Your task to perform on an android device: add a contact Image 0: 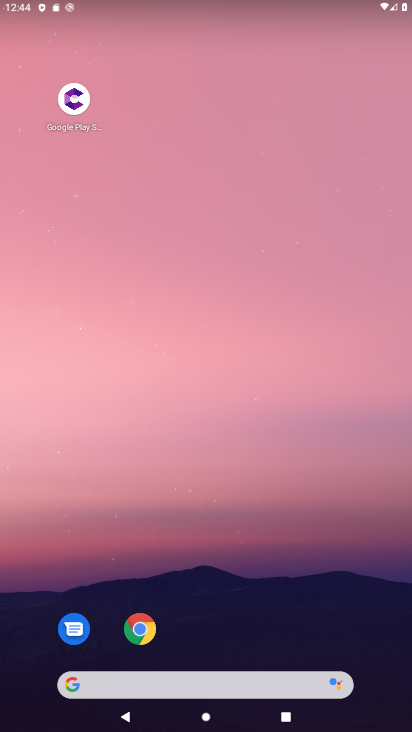
Step 0: drag from (198, 581) to (185, 94)
Your task to perform on an android device: add a contact Image 1: 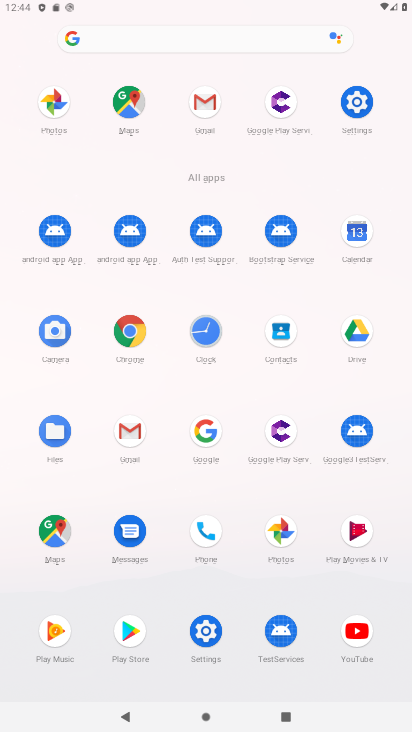
Step 1: click (276, 329)
Your task to perform on an android device: add a contact Image 2: 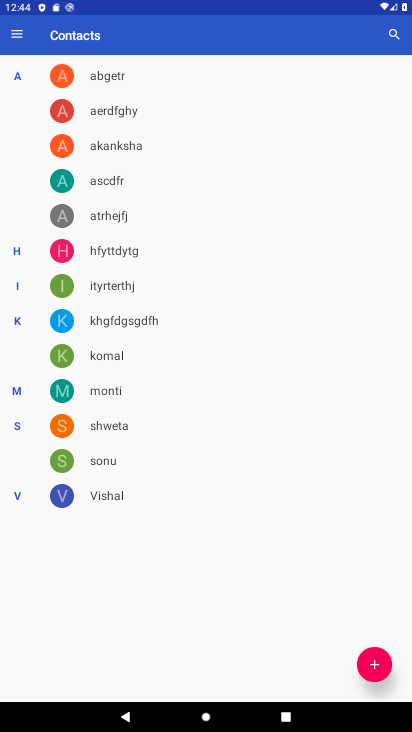
Step 2: click (370, 666)
Your task to perform on an android device: add a contact Image 3: 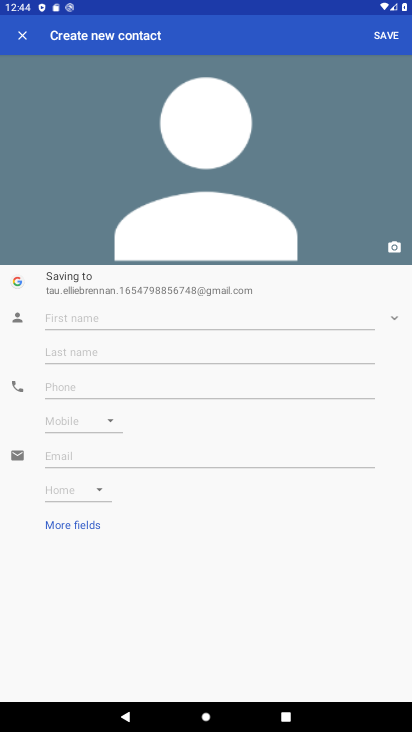
Step 3: click (102, 321)
Your task to perform on an android device: add a contact Image 4: 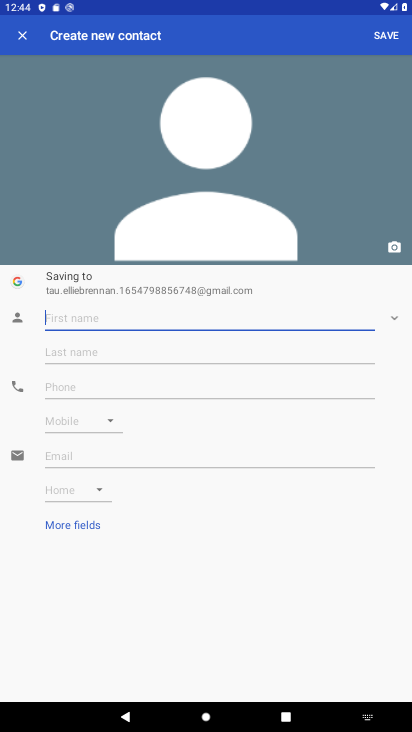
Step 4: type "hgdgh"
Your task to perform on an android device: add a contact Image 5: 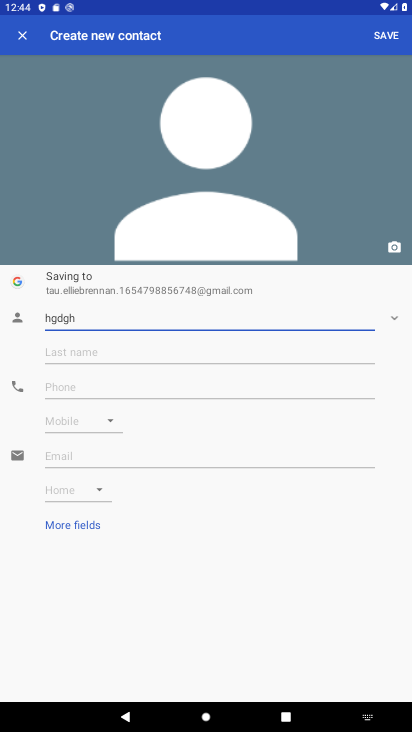
Step 5: click (118, 385)
Your task to perform on an android device: add a contact Image 6: 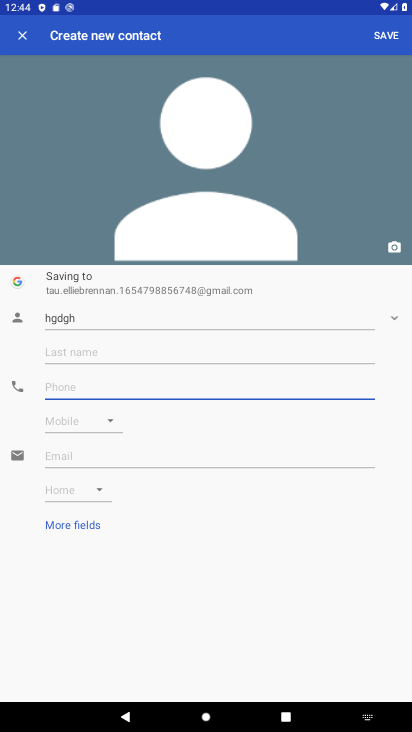
Step 6: type "646763637"
Your task to perform on an android device: add a contact Image 7: 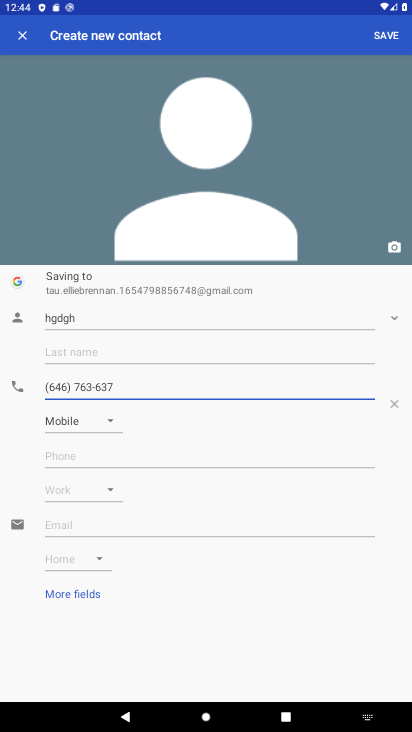
Step 7: click (376, 35)
Your task to perform on an android device: add a contact Image 8: 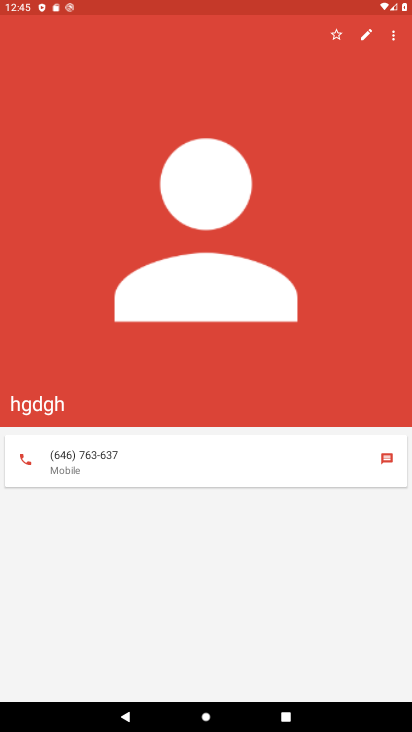
Step 8: task complete